Your task to perform on an android device: Open Android settings Image 0: 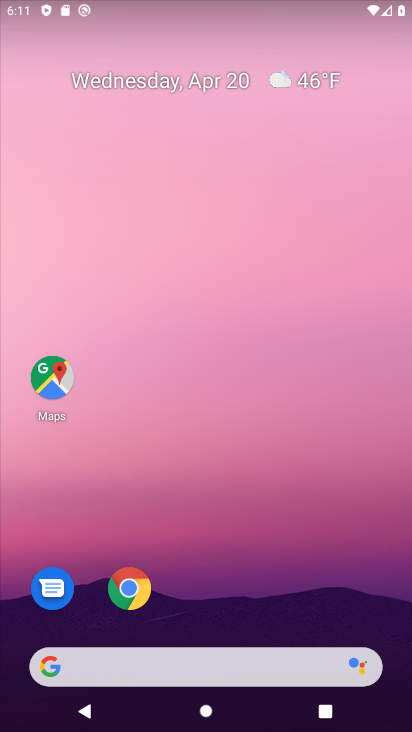
Step 0: drag from (266, 537) to (258, 175)
Your task to perform on an android device: Open Android settings Image 1: 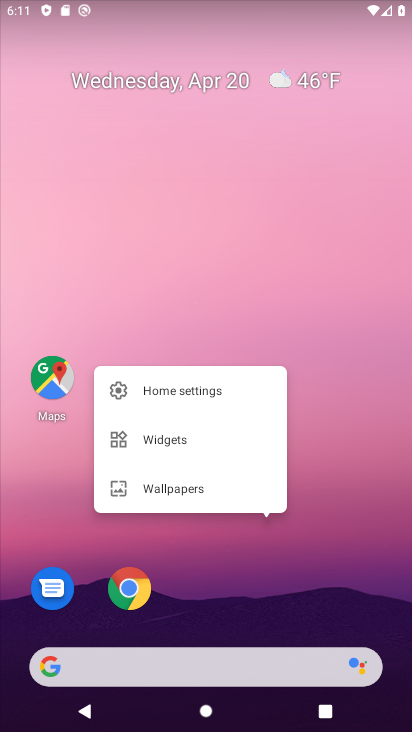
Step 1: click (372, 399)
Your task to perform on an android device: Open Android settings Image 2: 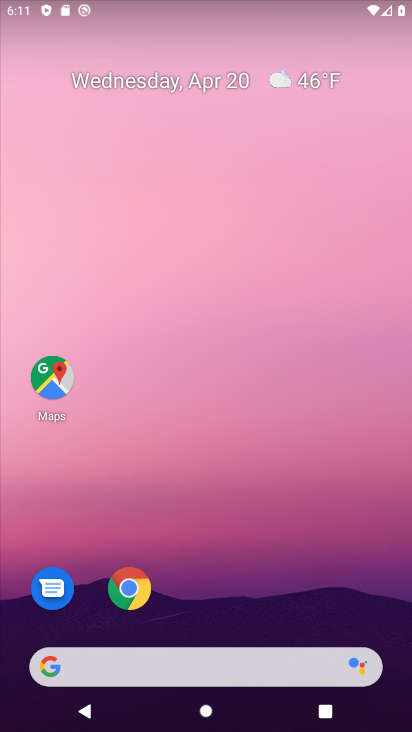
Step 2: drag from (311, 586) to (285, 125)
Your task to perform on an android device: Open Android settings Image 3: 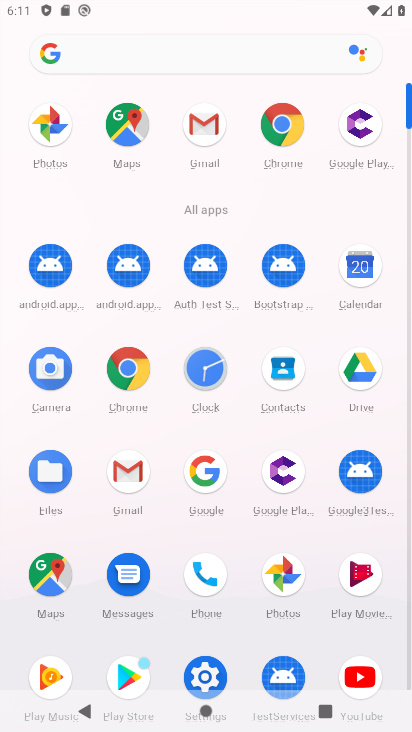
Step 3: drag from (262, 461) to (231, 59)
Your task to perform on an android device: Open Android settings Image 4: 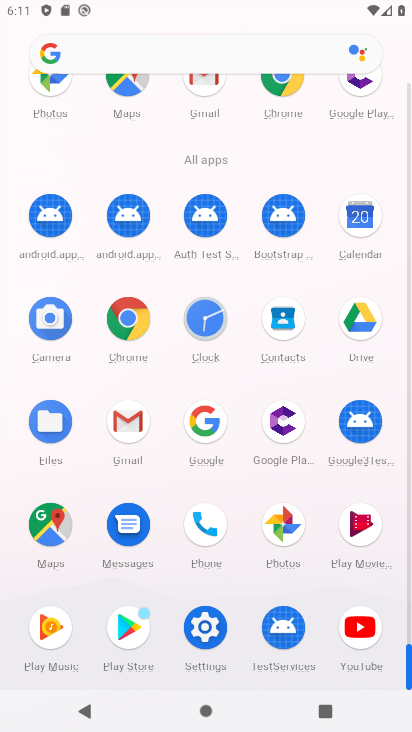
Step 4: click (204, 639)
Your task to perform on an android device: Open Android settings Image 5: 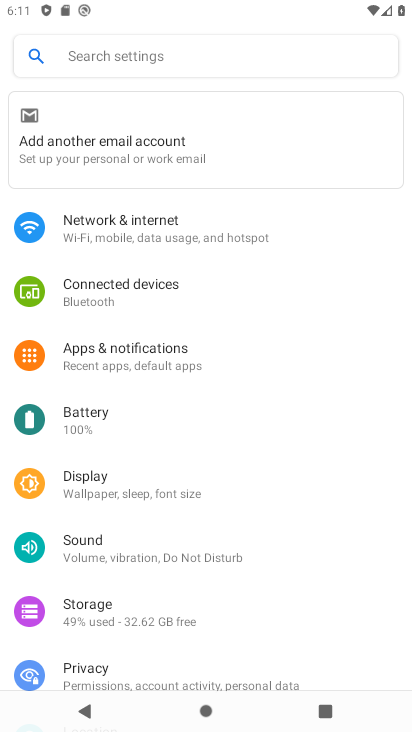
Step 5: drag from (263, 628) to (257, 207)
Your task to perform on an android device: Open Android settings Image 6: 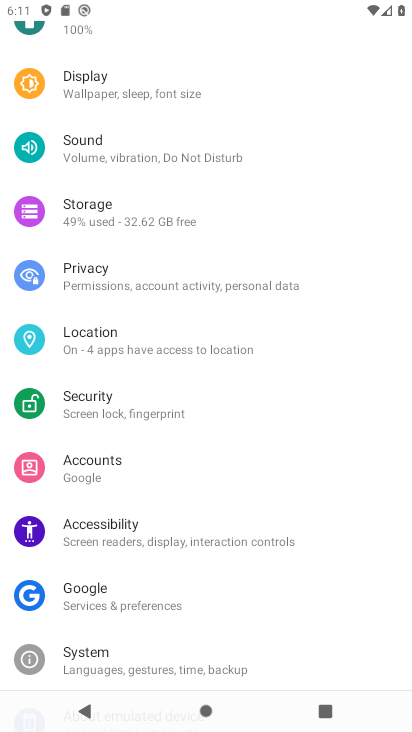
Step 6: drag from (285, 604) to (257, 237)
Your task to perform on an android device: Open Android settings Image 7: 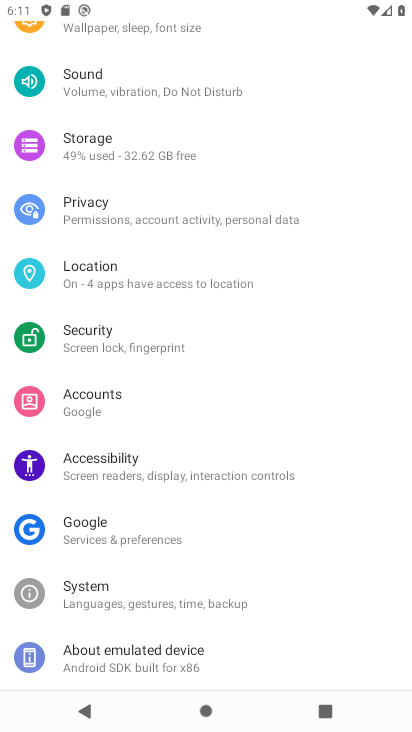
Step 7: click (161, 654)
Your task to perform on an android device: Open Android settings Image 8: 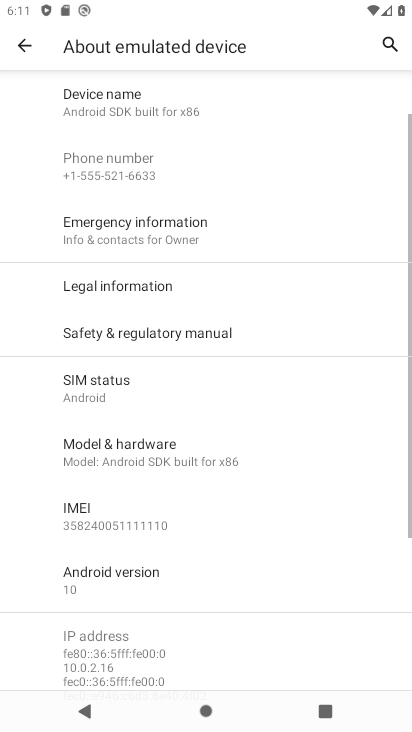
Step 8: drag from (262, 600) to (241, 266)
Your task to perform on an android device: Open Android settings Image 9: 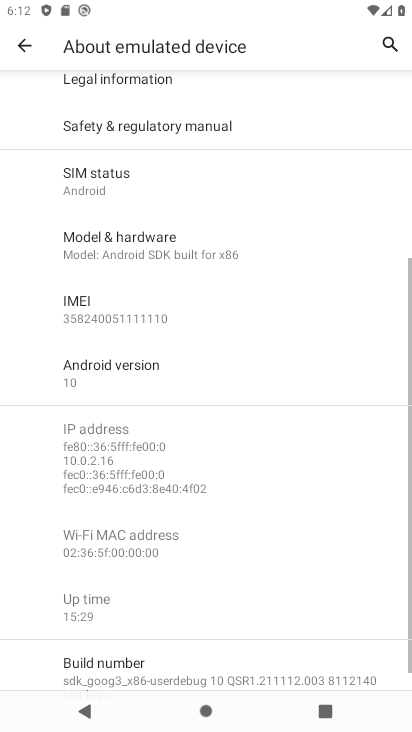
Step 9: click (137, 367)
Your task to perform on an android device: Open Android settings Image 10: 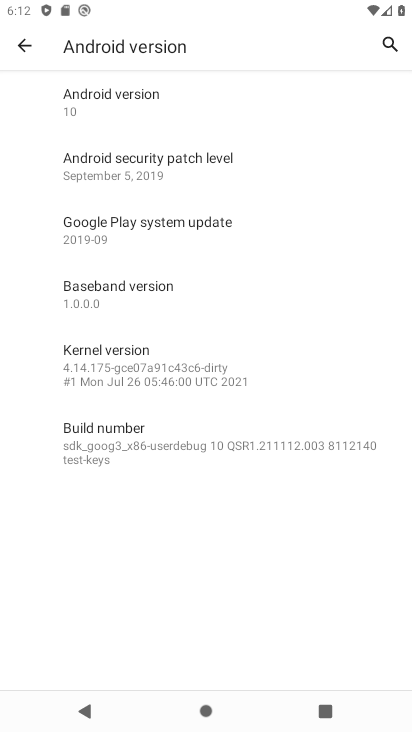
Step 10: task complete